Your task to perform on an android device: Set the phone to "Do not disturb". Image 0: 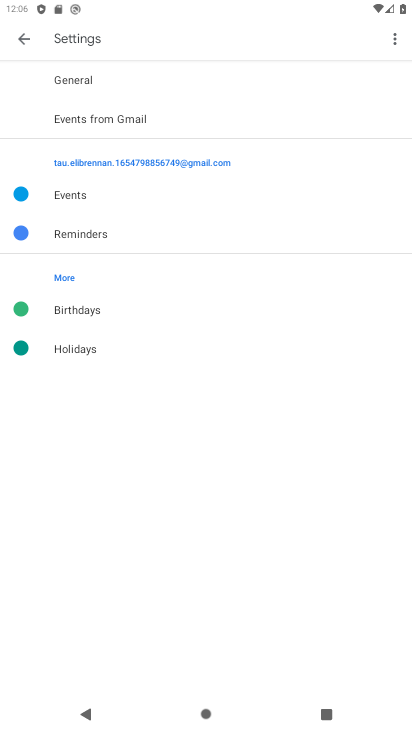
Step 0: press home button
Your task to perform on an android device: Set the phone to "Do not disturb". Image 1: 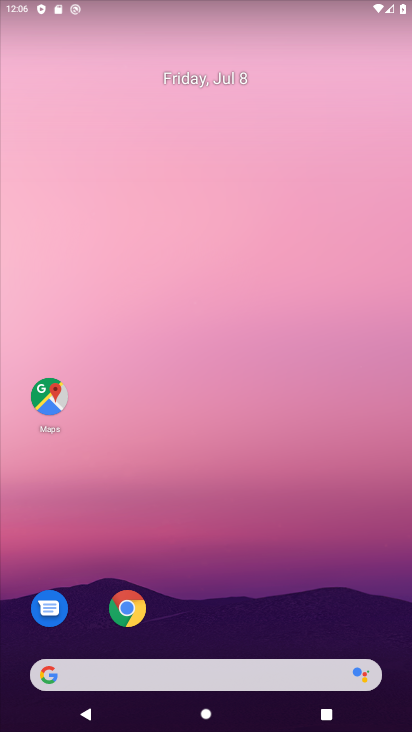
Step 1: drag from (222, 685) to (225, 193)
Your task to perform on an android device: Set the phone to "Do not disturb". Image 2: 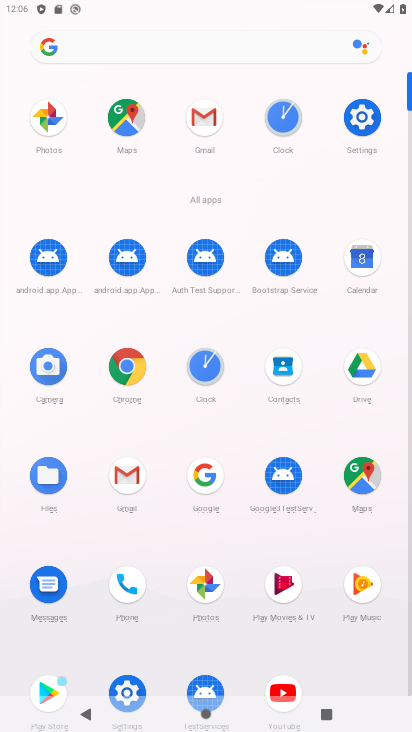
Step 2: click (361, 114)
Your task to perform on an android device: Set the phone to "Do not disturb". Image 3: 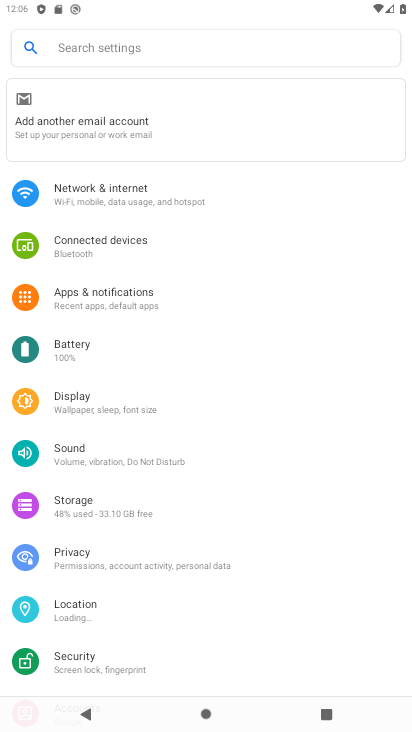
Step 3: click (101, 459)
Your task to perform on an android device: Set the phone to "Do not disturb". Image 4: 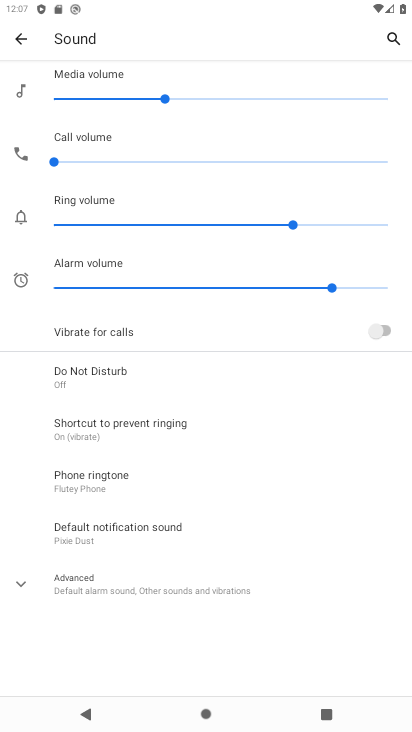
Step 4: click (74, 375)
Your task to perform on an android device: Set the phone to "Do not disturb". Image 5: 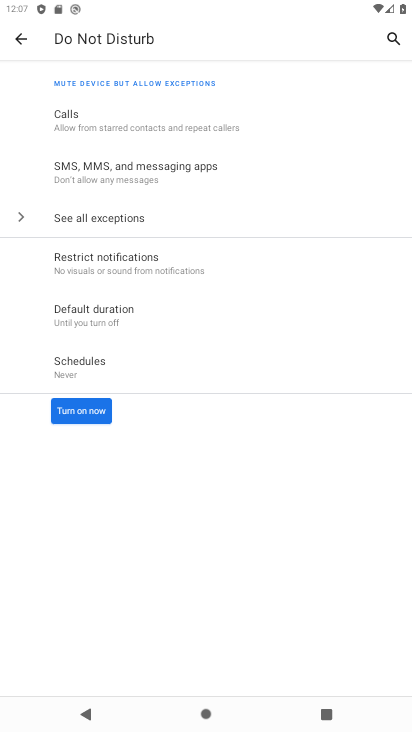
Step 5: click (72, 408)
Your task to perform on an android device: Set the phone to "Do not disturb". Image 6: 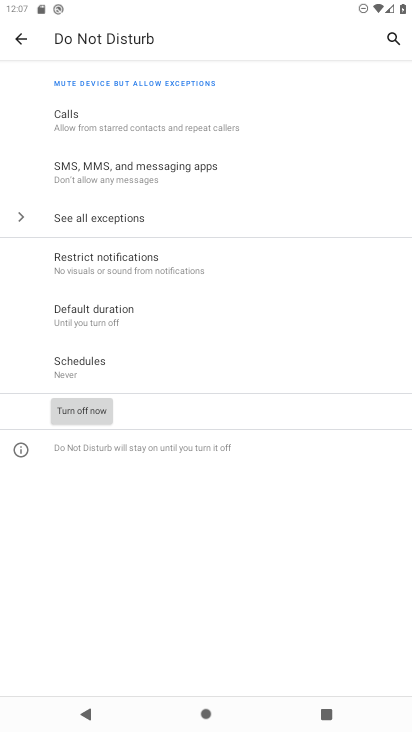
Step 6: task complete